Your task to perform on an android device: set the timer Image 0: 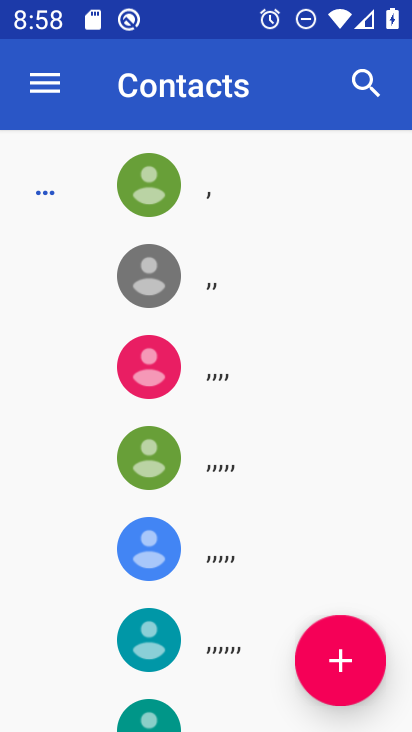
Step 0: press home button
Your task to perform on an android device: set the timer Image 1: 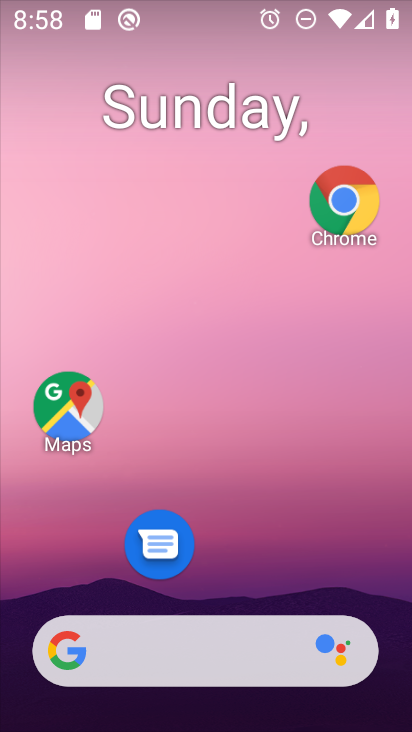
Step 1: drag from (265, 583) to (232, 97)
Your task to perform on an android device: set the timer Image 2: 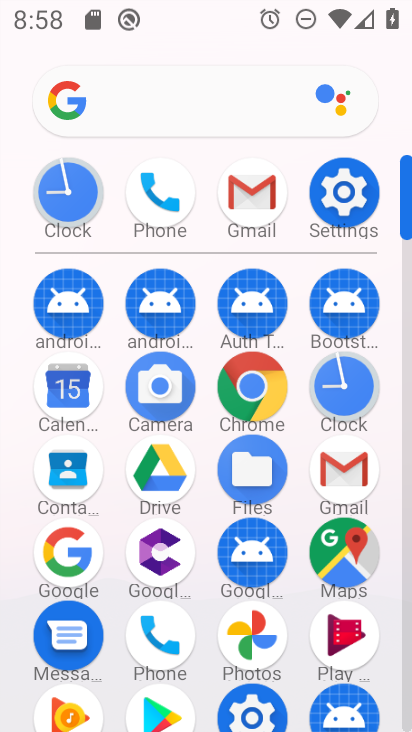
Step 2: click (61, 197)
Your task to perform on an android device: set the timer Image 3: 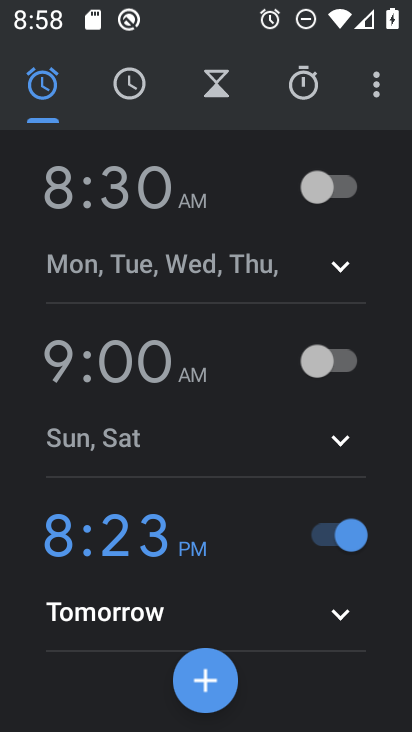
Step 3: click (225, 93)
Your task to perform on an android device: set the timer Image 4: 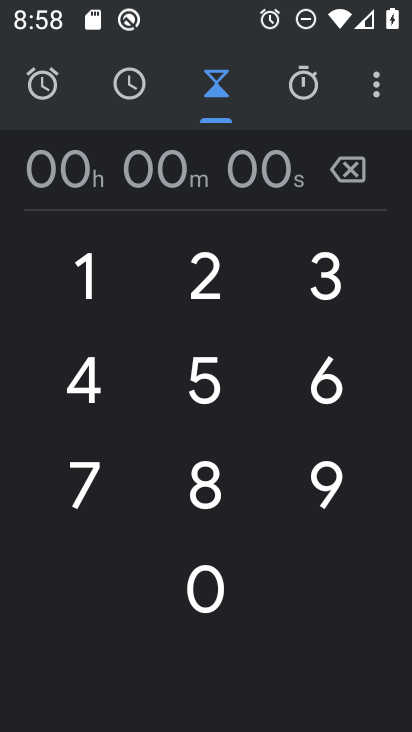
Step 4: click (101, 282)
Your task to perform on an android device: set the timer Image 5: 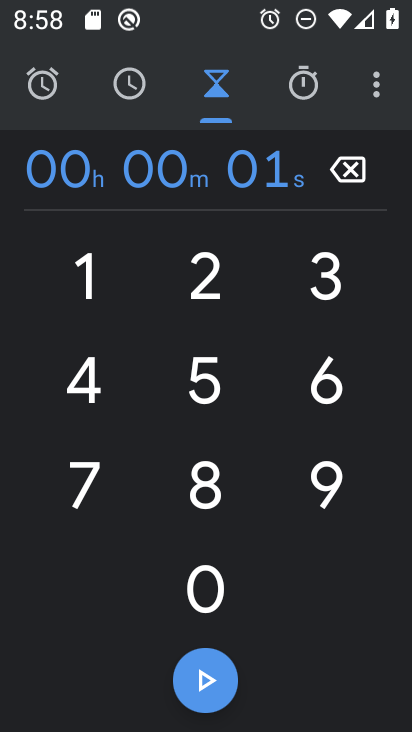
Step 5: click (103, 281)
Your task to perform on an android device: set the timer Image 6: 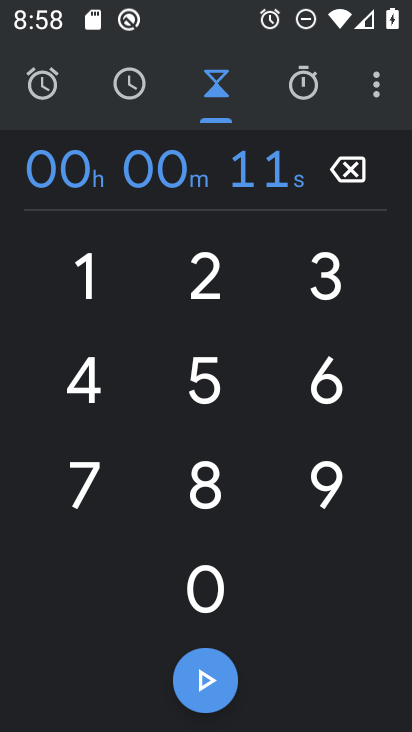
Step 6: click (103, 281)
Your task to perform on an android device: set the timer Image 7: 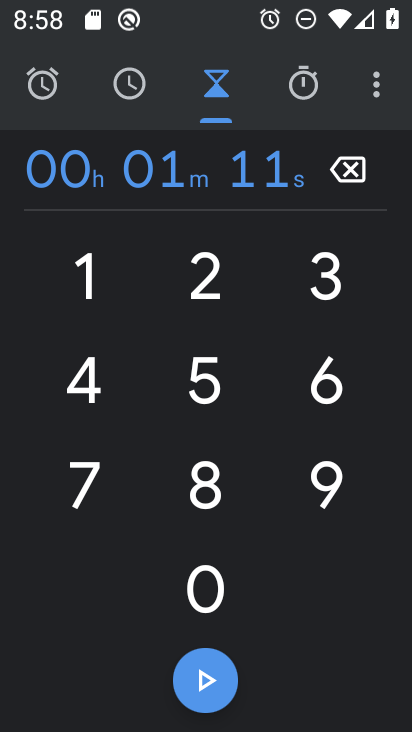
Step 7: click (98, 272)
Your task to perform on an android device: set the timer Image 8: 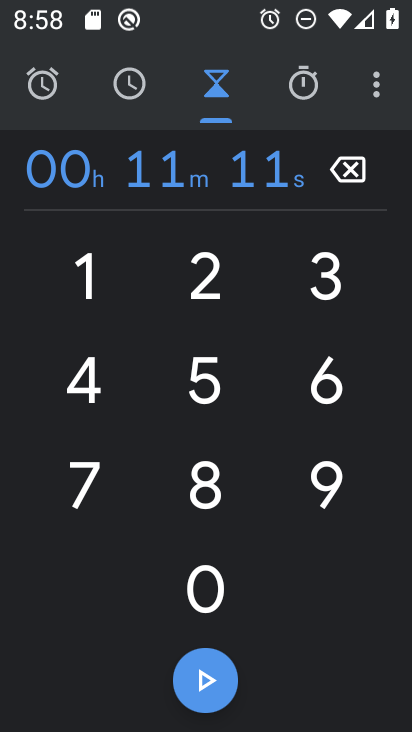
Step 8: click (98, 271)
Your task to perform on an android device: set the timer Image 9: 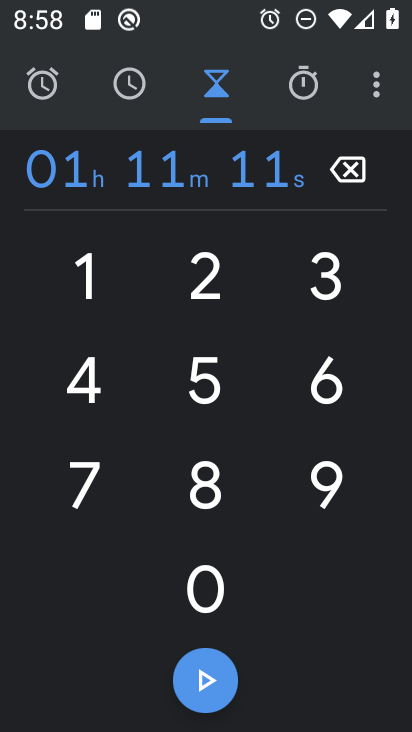
Step 9: click (98, 271)
Your task to perform on an android device: set the timer Image 10: 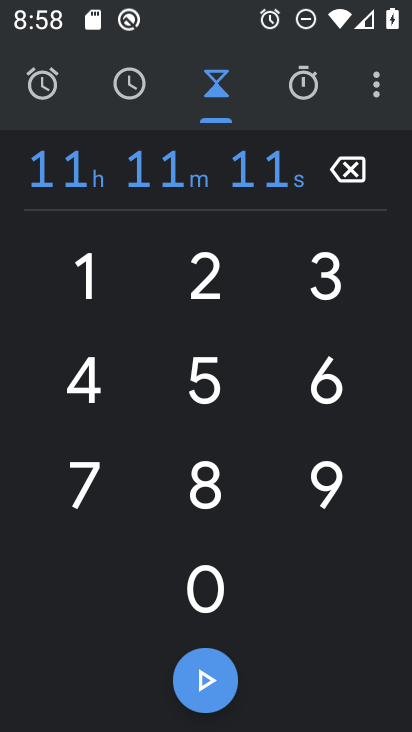
Step 10: click (204, 667)
Your task to perform on an android device: set the timer Image 11: 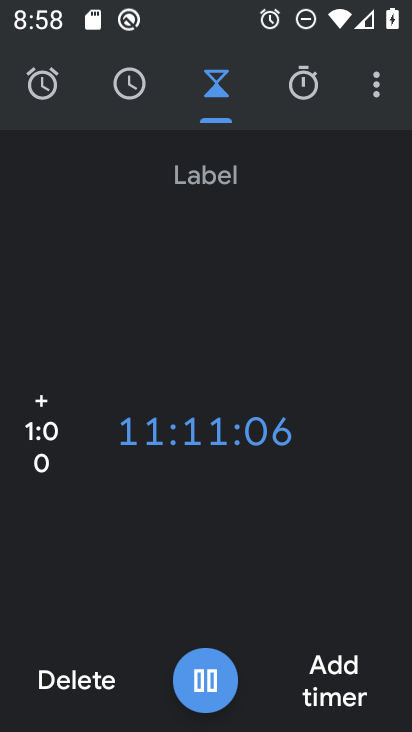
Step 11: task complete